Your task to perform on an android device: Show me popular videos on Youtube Image 0: 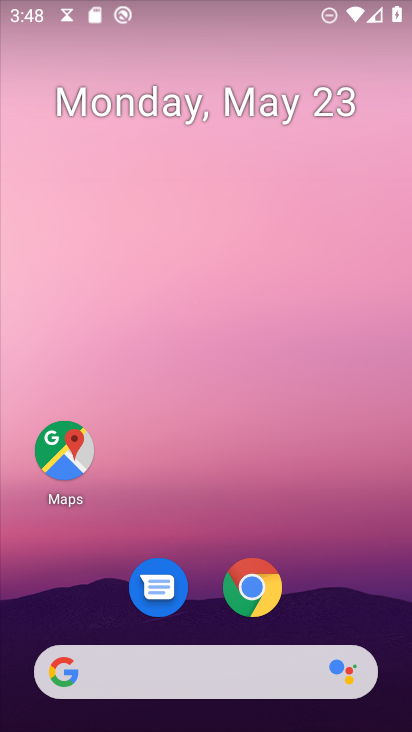
Step 0: drag from (215, 624) to (261, 31)
Your task to perform on an android device: Show me popular videos on Youtube Image 1: 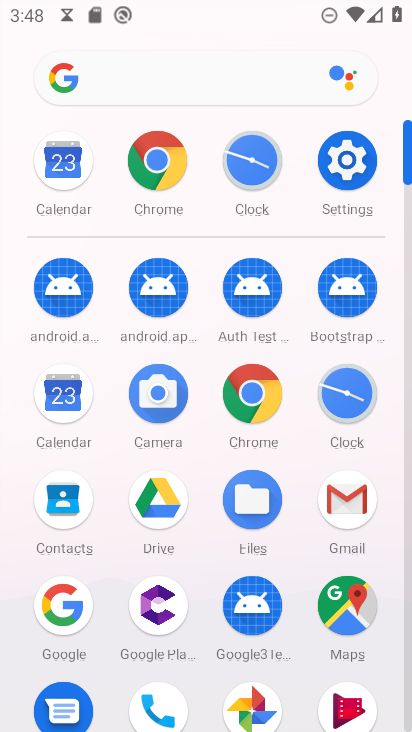
Step 1: drag from (207, 579) to (181, 2)
Your task to perform on an android device: Show me popular videos on Youtube Image 2: 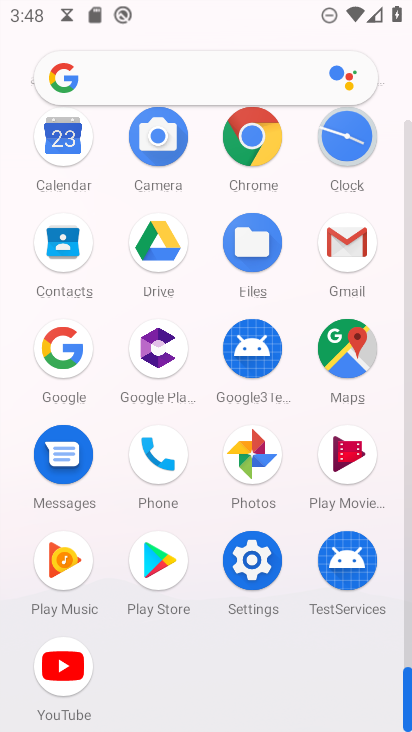
Step 2: click (68, 685)
Your task to perform on an android device: Show me popular videos on Youtube Image 3: 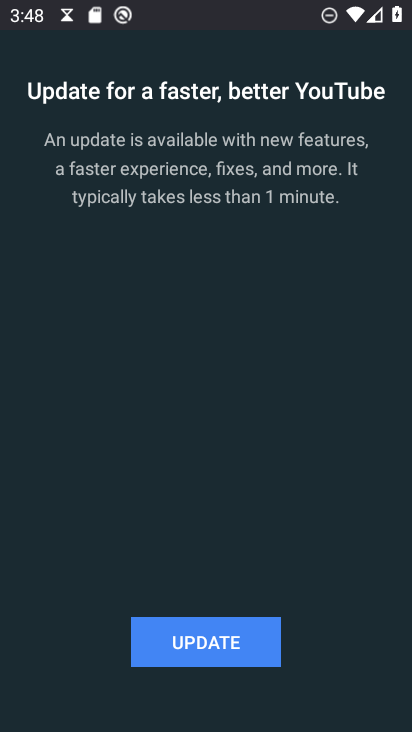
Step 3: click (180, 645)
Your task to perform on an android device: Show me popular videos on Youtube Image 4: 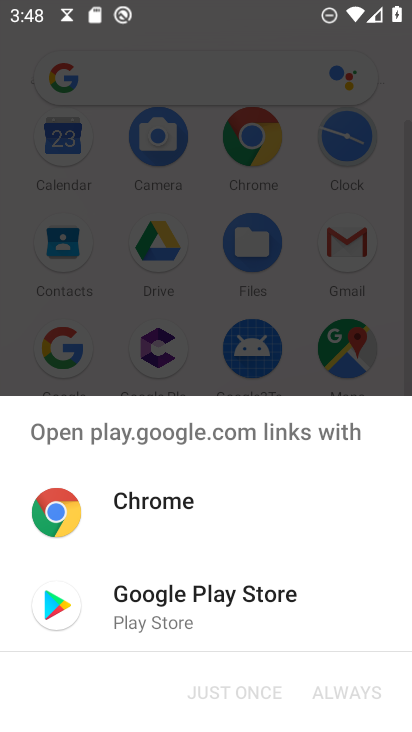
Step 4: drag from (165, 603) to (223, 603)
Your task to perform on an android device: Show me popular videos on Youtube Image 5: 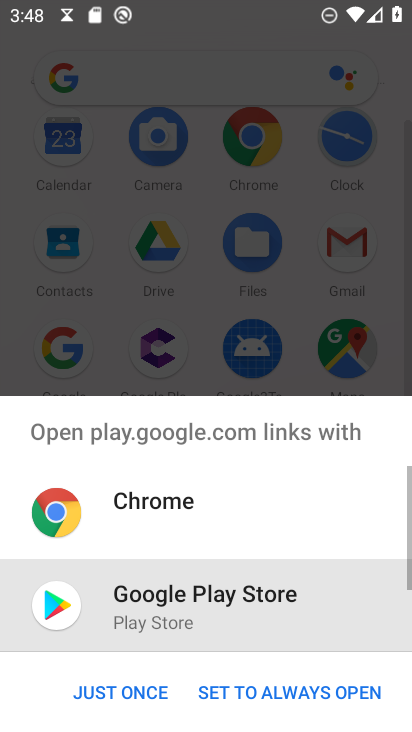
Step 5: click (135, 693)
Your task to perform on an android device: Show me popular videos on Youtube Image 6: 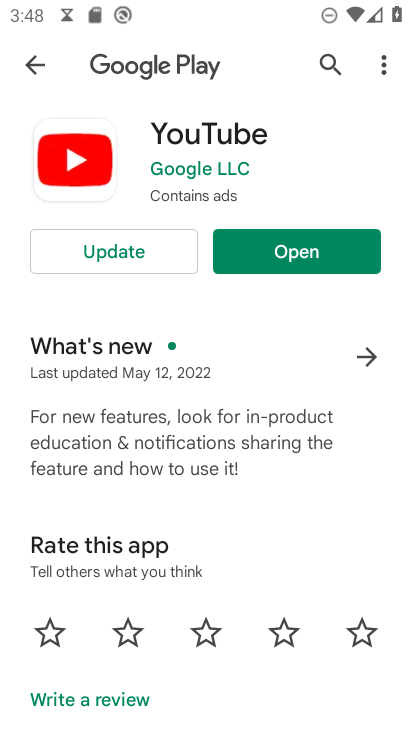
Step 6: click (155, 243)
Your task to perform on an android device: Show me popular videos on Youtube Image 7: 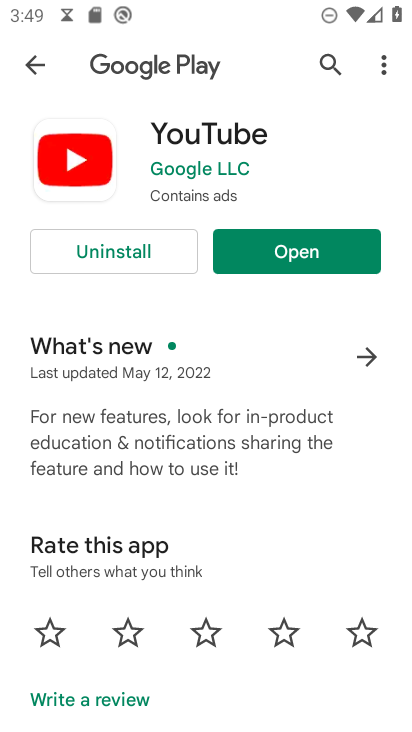
Step 7: click (273, 253)
Your task to perform on an android device: Show me popular videos on Youtube Image 8: 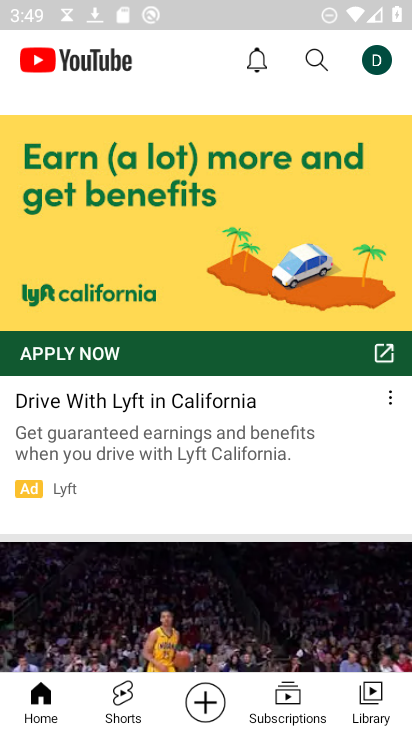
Step 8: drag from (100, 268) to (105, 373)
Your task to perform on an android device: Show me popular videos on Youtube Image 9: 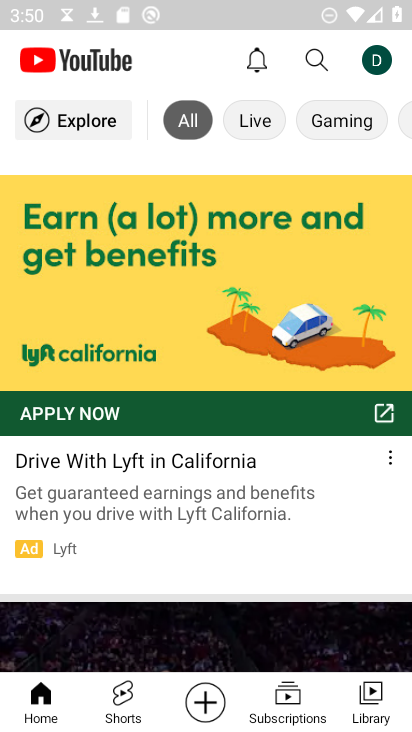
Step 9: click (85, 124)
Your task to perform on an android device: Show me popular videos on Youtube Image 10: 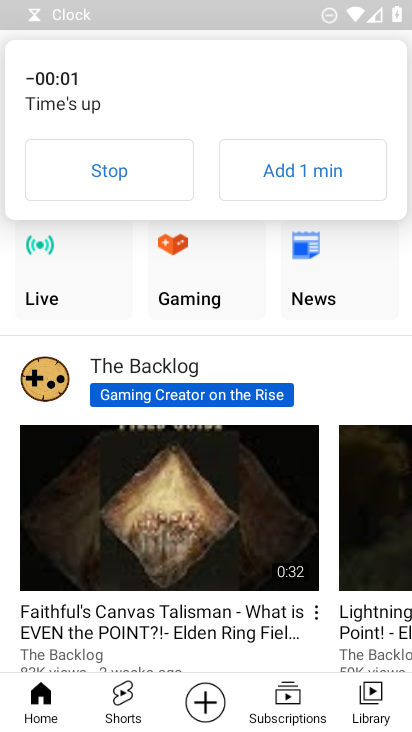
Step 10: click (84, 172)
Your task to perform on an android device: Show me popular videos on Youtube Image 11: 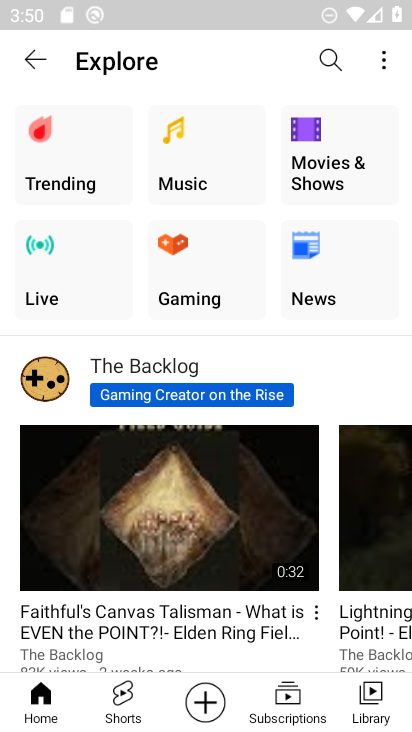
Step 11: click (45, 135)
Your task to perform on an android device: Show me popular videos on Youtube Image 12: 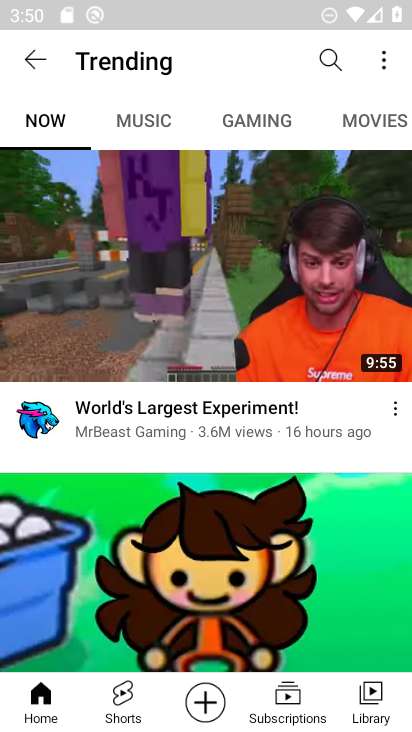
Step 12: task complete